Your task to perform on an android device: Open the calendar app, open the side menu, and click the "Day" option Image 0: 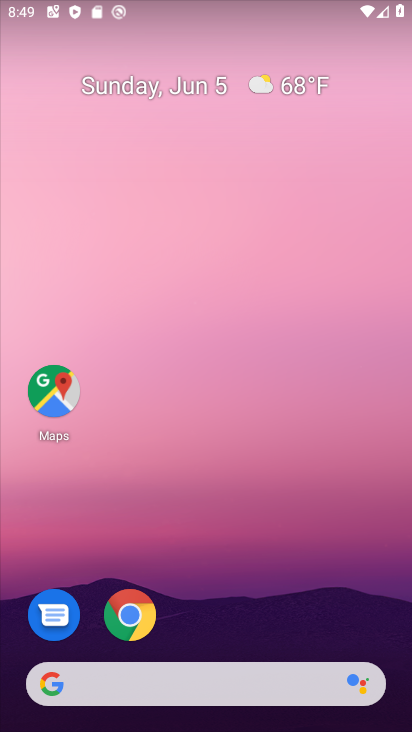
Step 0: drag from (123, 726) to (232, 95)
Your task to perform on an android device: Open the calendar app, open the side menu, and click the "Day" option Image 1: 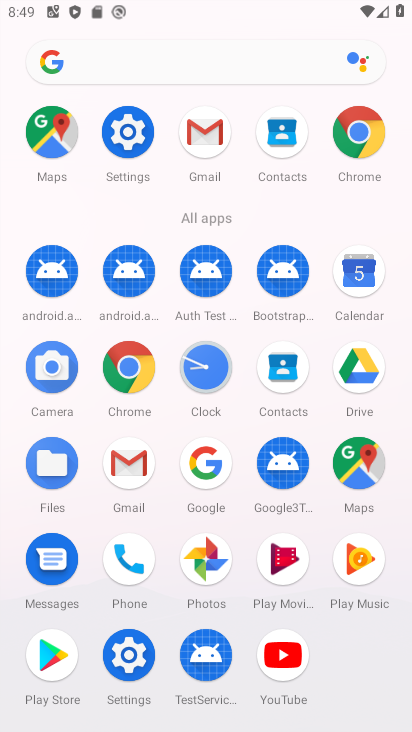
Step 1: click (355, 282)
Your task to perform on an android device: Open the calendar app, open the side menu, and click the "Day" option Image 2: 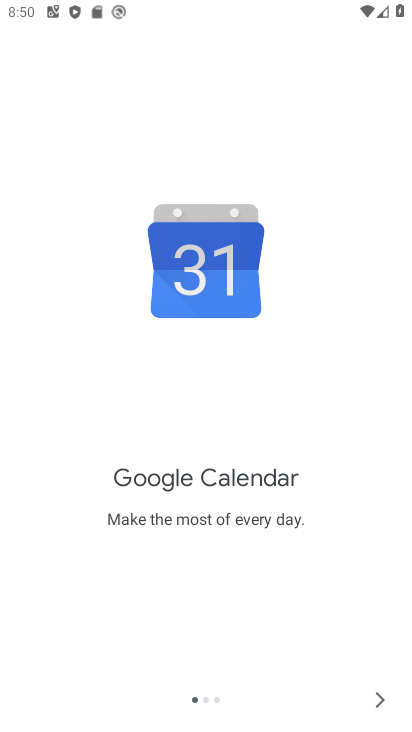
Step 2: click (365, 673)
Your task to perform on an android device: Open the calendar app, open the side menu, and click the "Day" option Image 3: 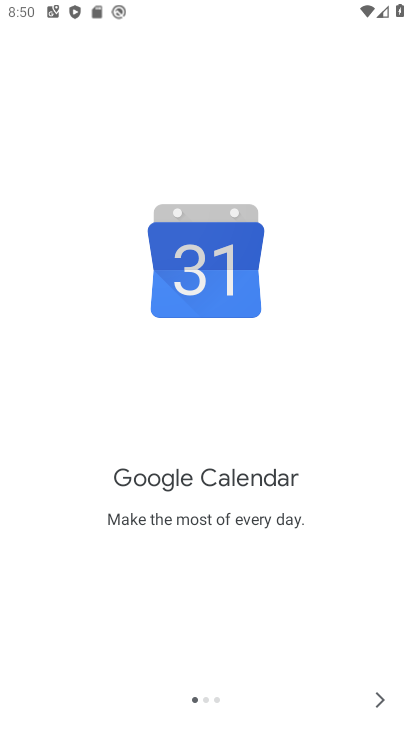
Step 3: click (366, 672)
Your task to perform on an android device: Open the calendar app, open the side menu, and click the "Day" option Image 4: 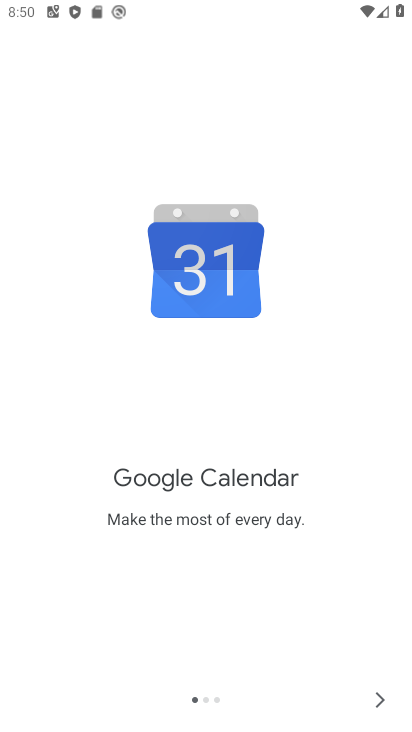
Step 4: click (377, 693)
Your task to perform on an android device: Open the calendar app, open the side menu, and click the "Day" option Image 5: 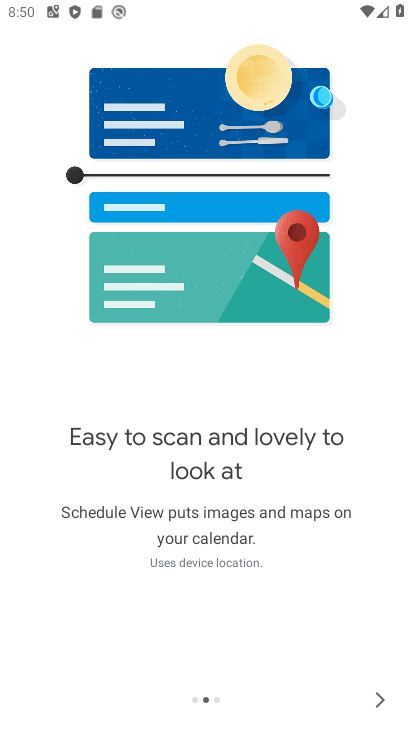
Step 5: click (378, 693)
Your task to perform on an android device: Open the calendar app, open the side menu, and click the "Day" option Image 6: 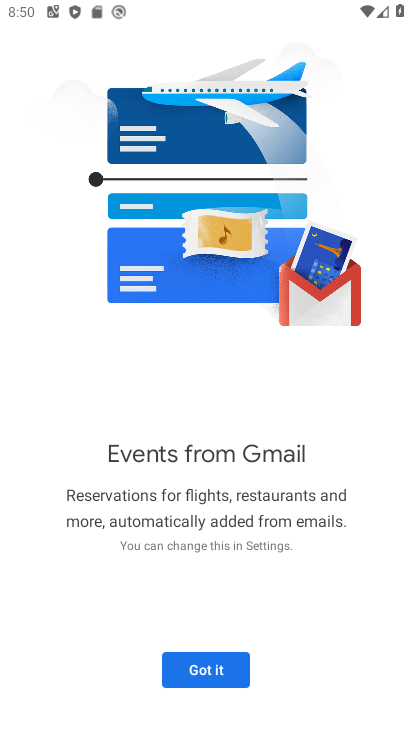
Step 6: click (244, 672)
Your task to perform on an android device: Open the calendar app, open the side menu, and click the "Day" option Image 7: 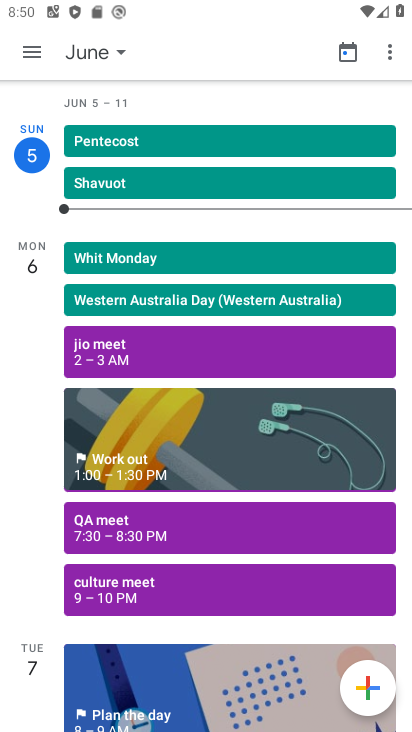
Step 7: click (35, 51)
Your task to perform on an android device: Open the calendar app, open the side menu, and click the "Day" option Image 8: 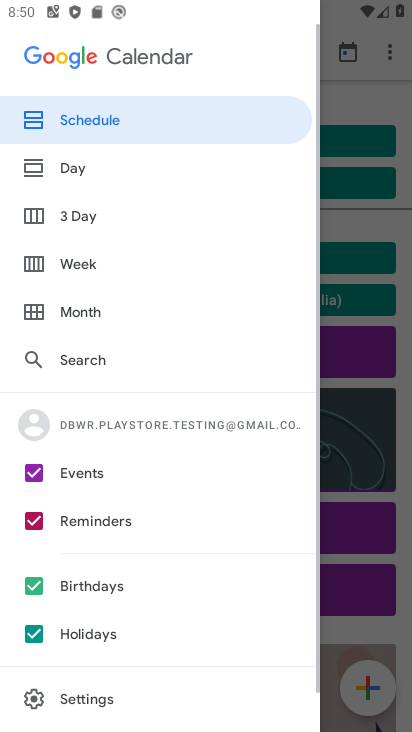
Step 8: click (93, 175)
Your task to perform on an android device: Open the calendar app, open the side menu, and click the "Day" option Image 9: 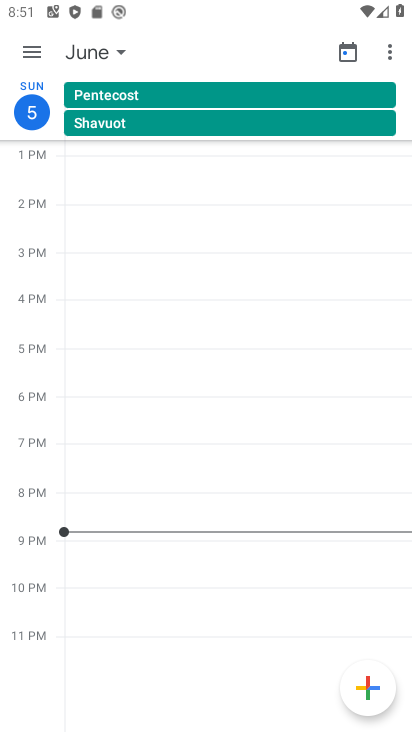
Step 9: task complete